Your task to perform on an android device: turn off improve location accuracy Image 0: 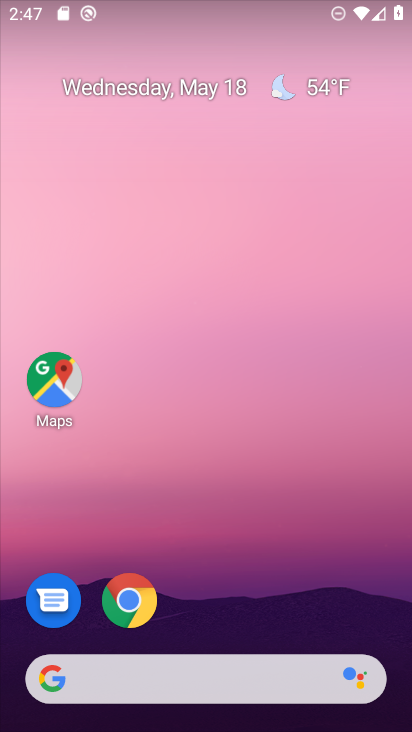
Step 0: drag from (225, 605) to (272, 152)
Your task to perform on an android device: turn off improve location accuracy Image 1: 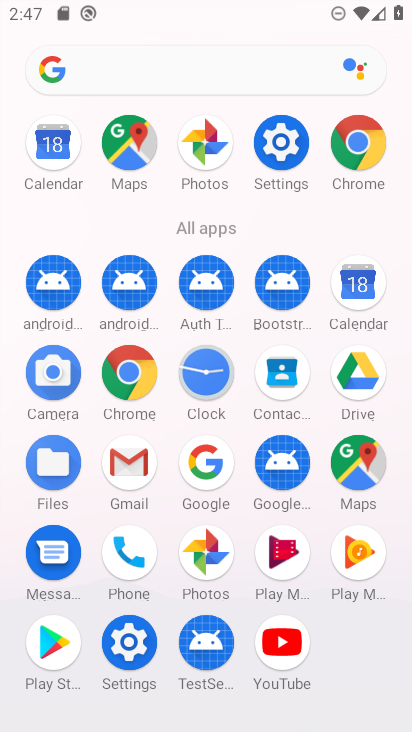
Step 1: click (129, 654)
Your task to perform on an android device: turn off improve location accuracy Image 2: 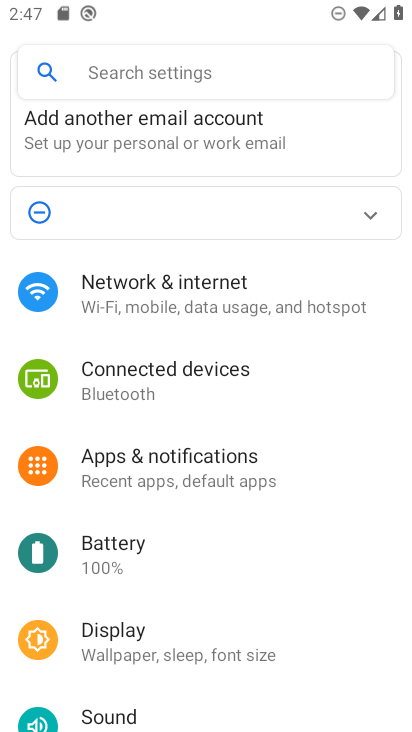
Step 2: drag from (177, 596) to (224, 320)
Your task to perform on an android device: turn off improve location accuracy Image 3: 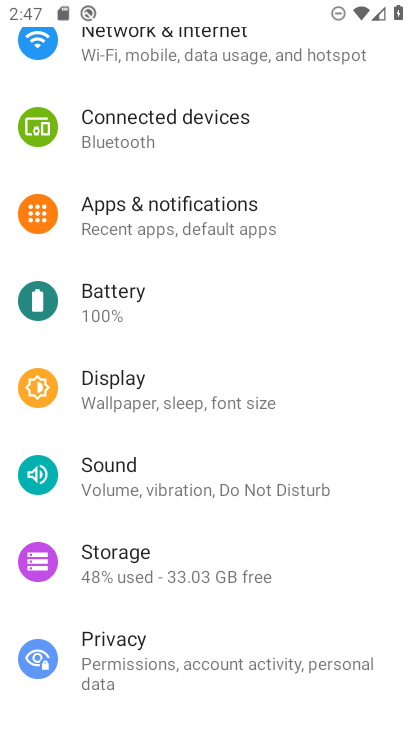
Step 3: drag from (148, 601) to (163, 363)
Your task to perform on an android device: turn off improve location accuracy Image 4: 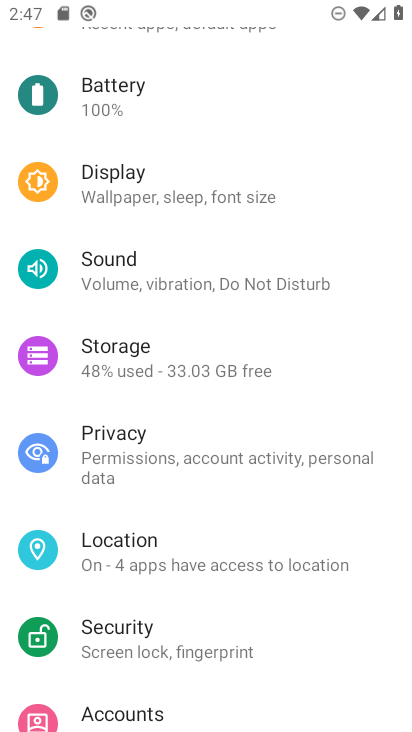
Step 4: click (155, 561)
Your task to perform on an android device: turn off improve location accuracy Image 5: 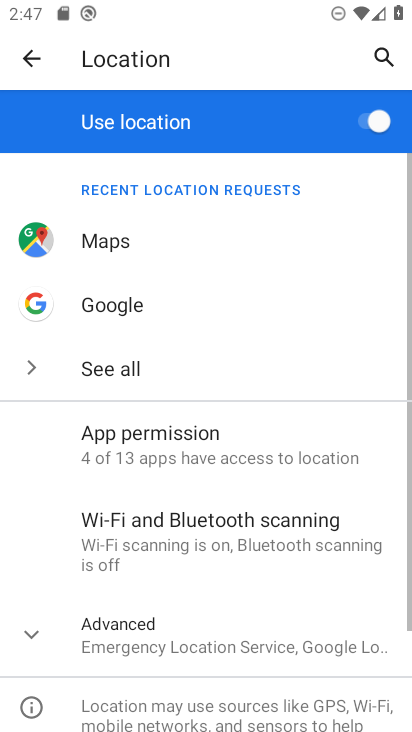
Step 5: drag from (162, 607) to (188, 234)
Your task to perform on an android device: turn off improve location accuracy Image 6: 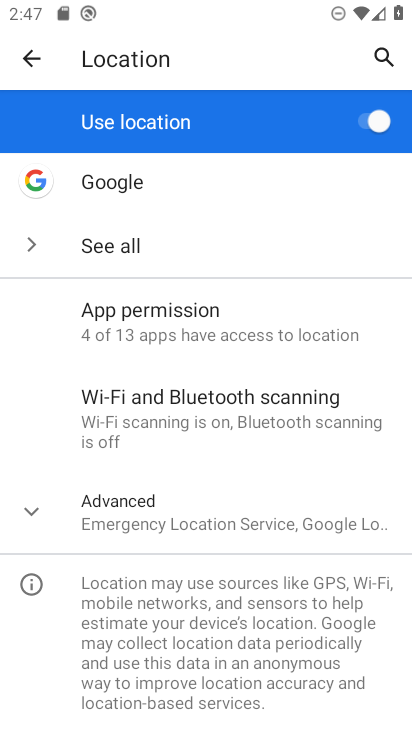
Step 6: click (157, 515)
Your task to perform on an android device: turn off improve location accuracy Image 7: 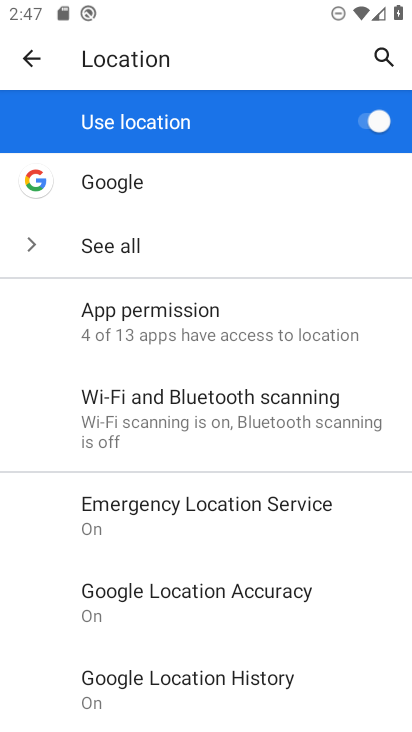
Step 7: click (153, 599)
Your task to perform on an android device: turn off improve location accuracy Image 8: 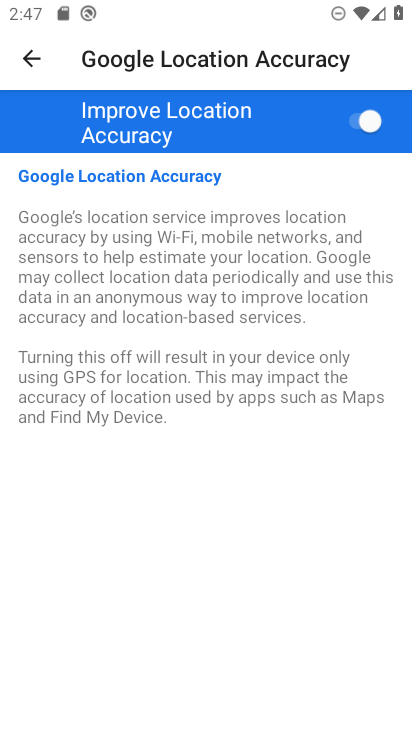
Step 8: click (347, 118)
Your task to perform on an android device: turn off improve location accuracy Image 9: 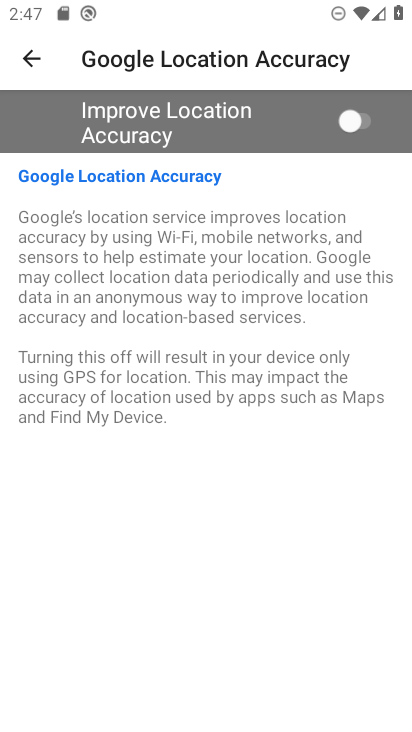
Step 9: task complete